Your task to perform on an android device: turn off airplane mode Image 0: 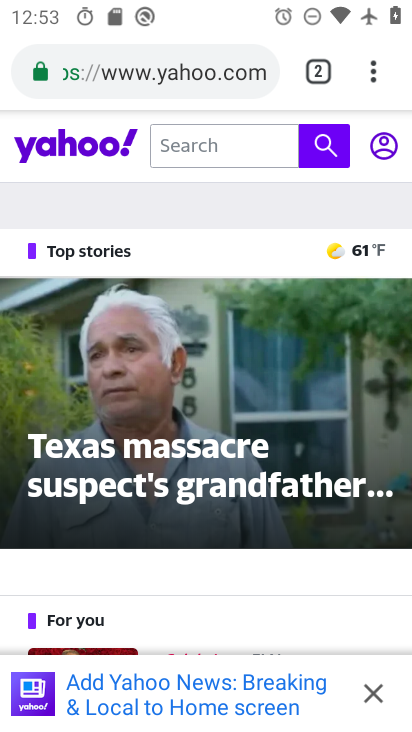
Step 0: press home button
Your task to perform on an android device: turn off airplane mode Image 1: 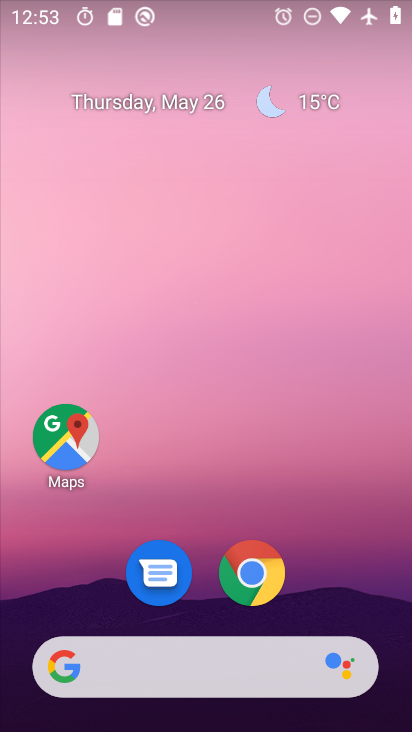
Step 1: drag from (328, 592) to (307, 0)
Your task to perform on an android device: turn off airplane mode Image 2: 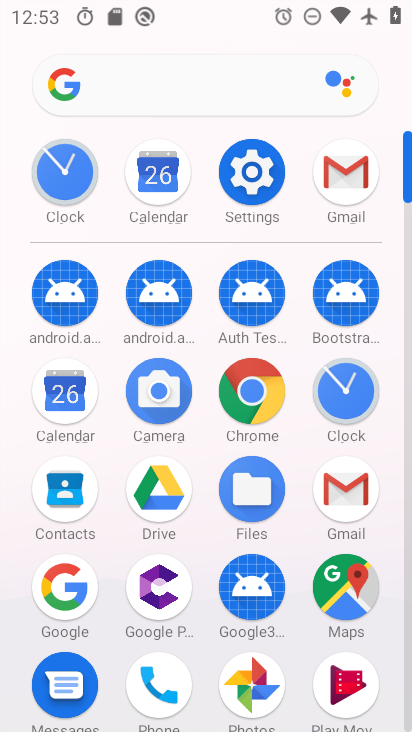
Step 2: click (262, 181)
Your task to perform on an android device: turn off airplane mode Image 3: 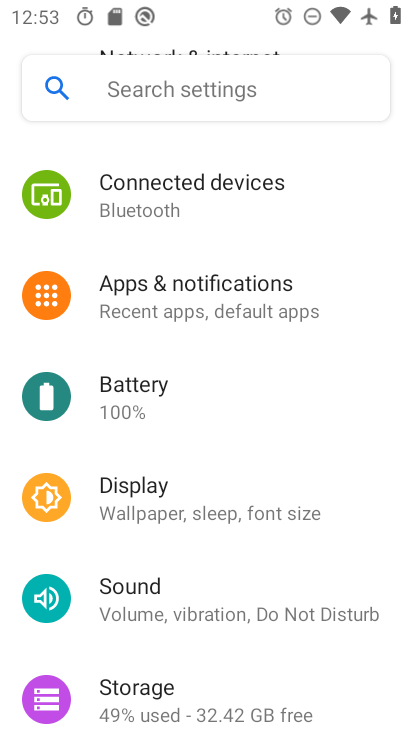
Step 3: drag from (373, 208) to (354, 633)
Your task to perform on an android device: turn off airplane mode Image 4: 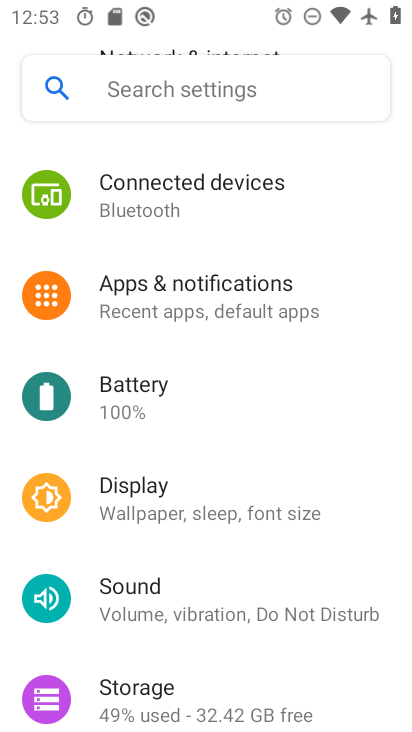
Step 4: drag from (346, 300) to (364, 571)
Your task to perform on an android device: turn off airplane mode Image 5: 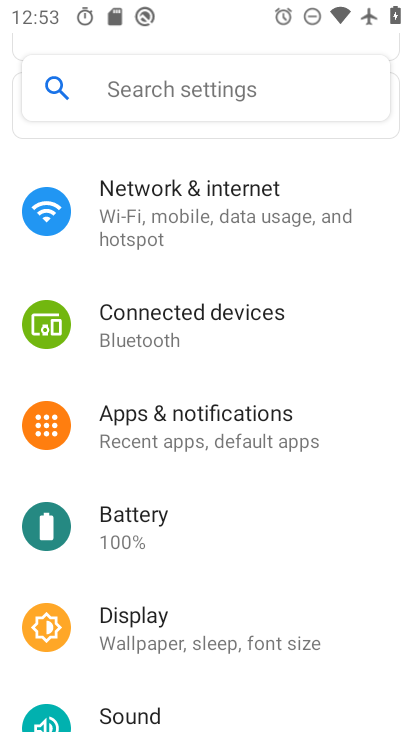
Step 5: click (173, 224)
Your task to perform on an android device: turn off airplane mode Image 6: 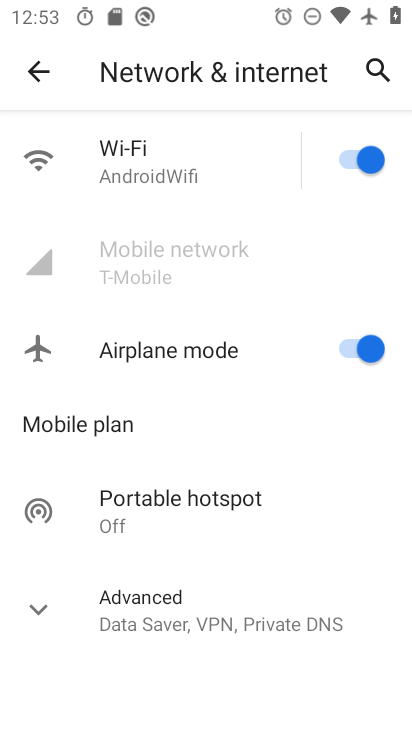
Step 6: click (358, 347)
Your task to perform on an android device: turn off airplane mode Image 7: 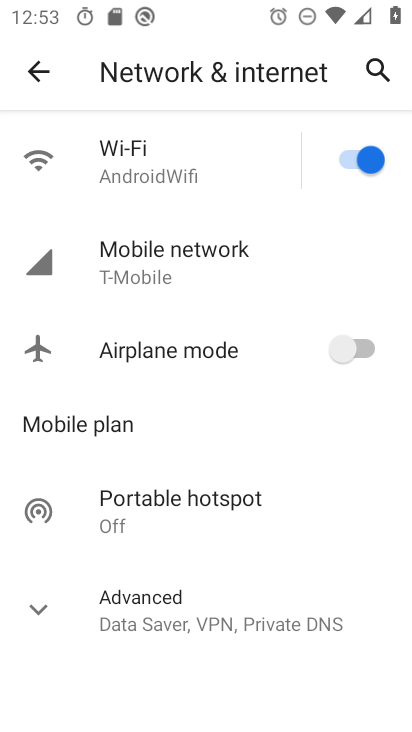
Step 7: task complete